Your task to perform on an android device: change the clock display to analog Image 0: 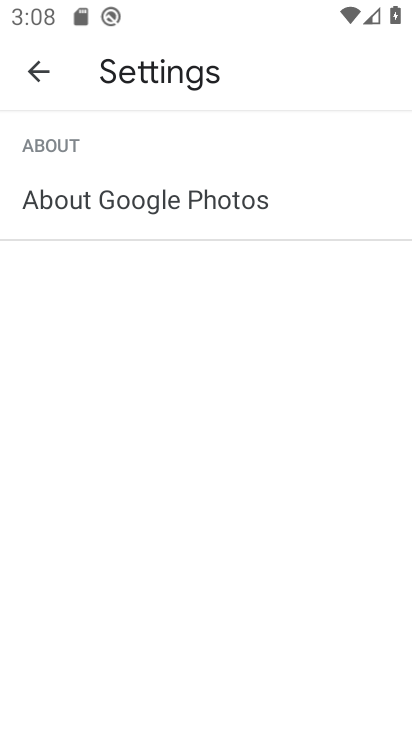
Step 0: press home button
Your task to perform on an android device: change the clock display to analog Image 1: 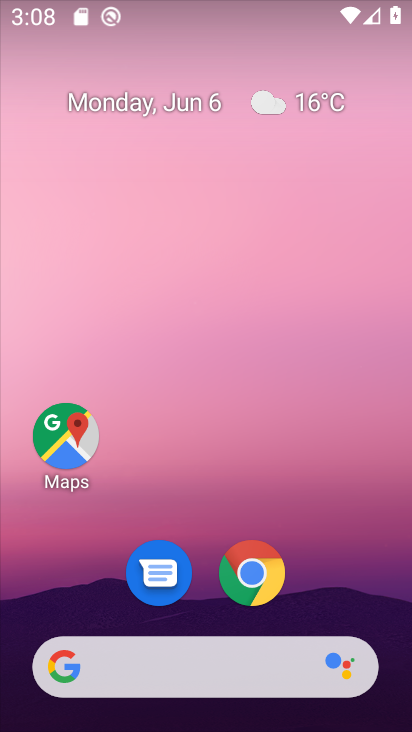
Step 1: drag from (224, 639) to (222, 217)
Your task to perform on an android device: change the clock display to analog Image 2: 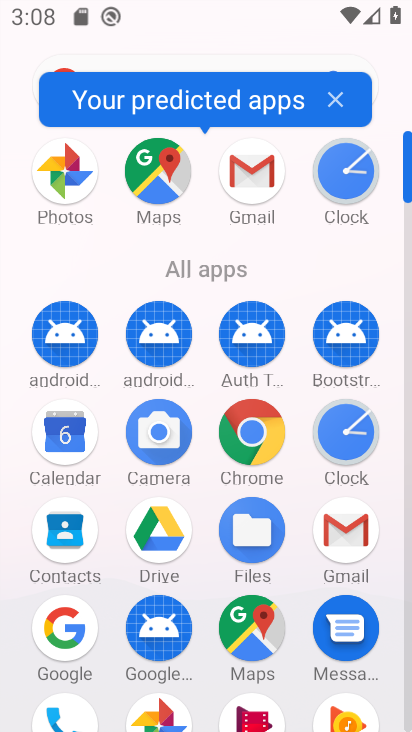
Step 2: click (362, 447)
Your task to perform on an android device: change the clock display to analog Image 3: 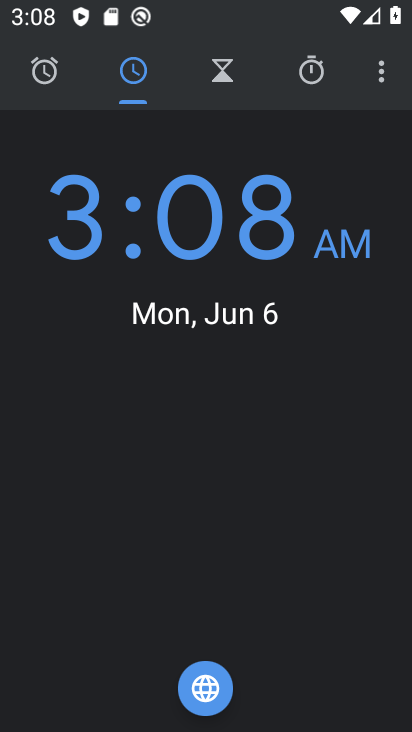
Step 3: click (387, 68)
Your task to perform on an android device: change the clock display to analog Image 4: 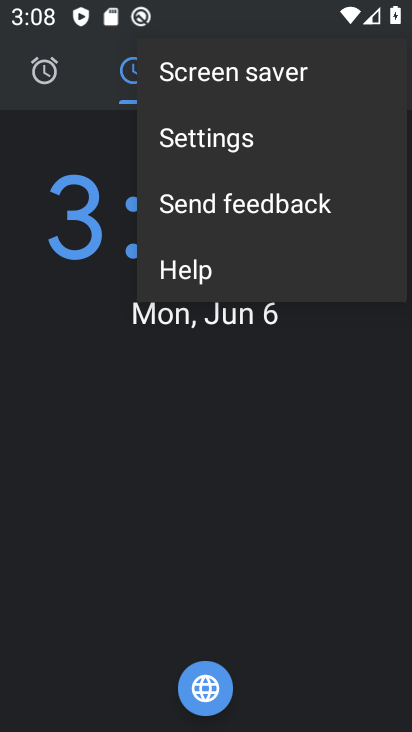
Step 4: click (232, 149)
Your task to perform on an android device: change the clock display to analog Image 5: 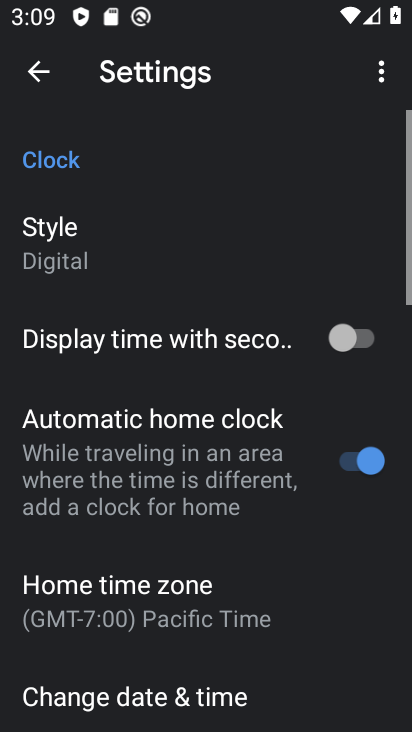
Step 5: click (67, 249)
Your task to perform on an android device: change the clock display to analog Image 6: 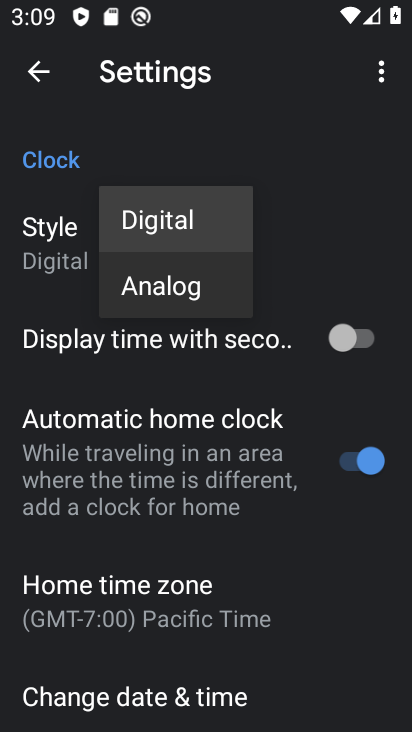
Step 6: click (147, 288)
Your task to perform on an android device: change the clock display to analog Image 7: 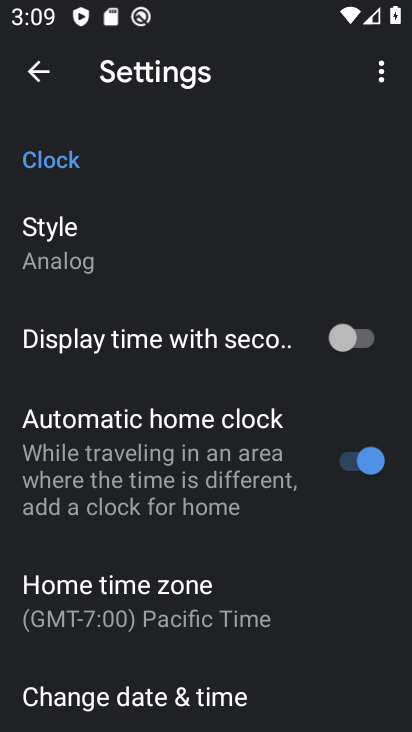
Step 7: task complete